Your task to perform on an android device: allow cookies in the chrome app Image 0: 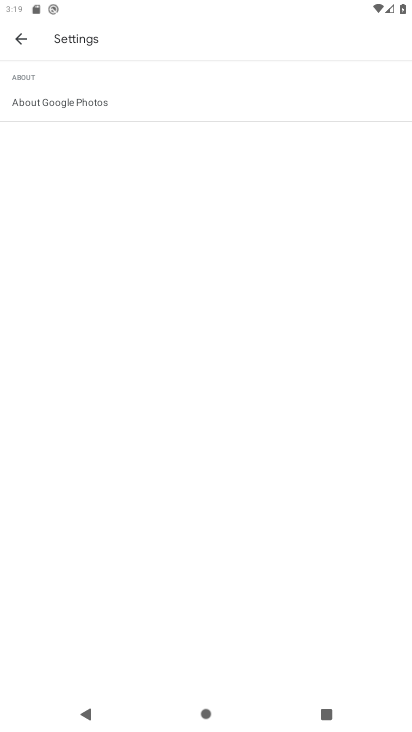
Step 0: press home button
Your task to perform on an android device: allow cookies in the chrome app Image 1: 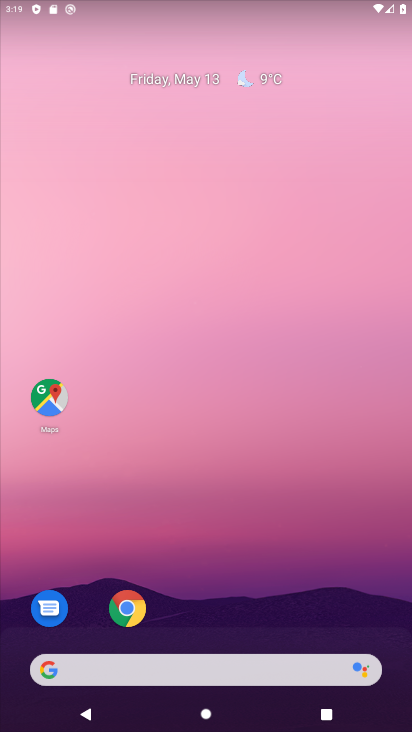
Step 1: click (128, 620)
Your task to perform on an android device: allow cookies in the chrome app Image 2: 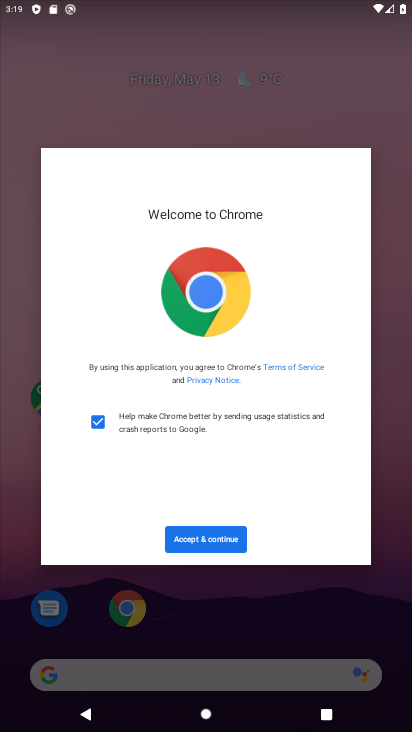
Step 2: click (210, 544)
Your task to perform on an android device: allow cookies in the chrome app Image 3: 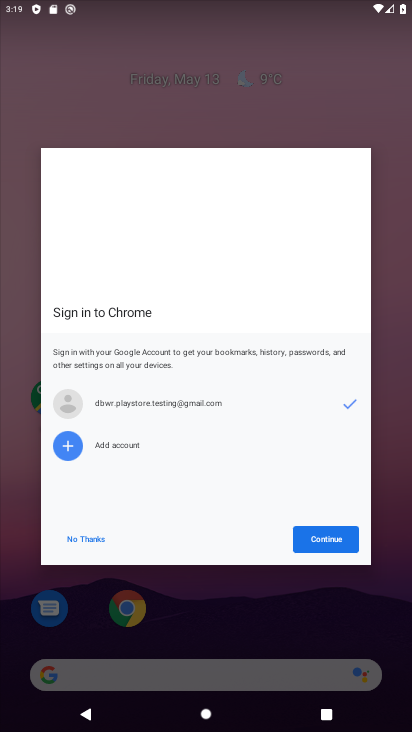
Step 3: click (362, 547)
Your task to perform on an android device: allow cookies in the chrome app Image 4: 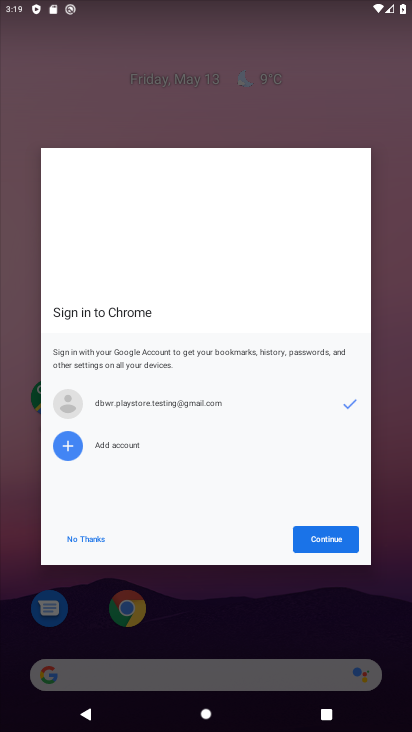
Step 4: click (333, 556)
Your task to perform on an android device: allow cookies in the chrome app Image 5: 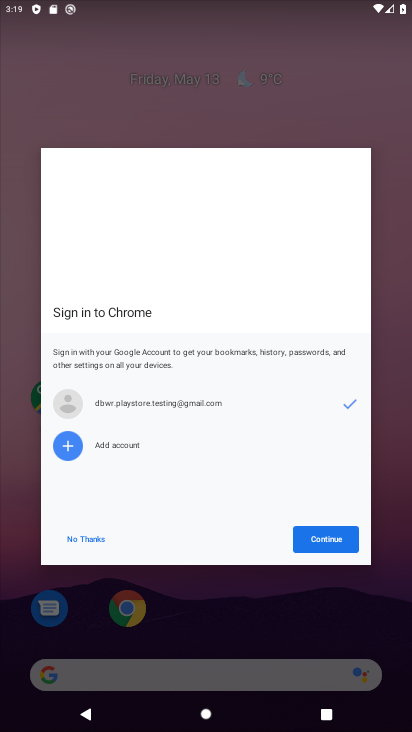
Step 5: click (334, 541)
Your task to perform on an android device: allow cookies in the chrome app Image 6: 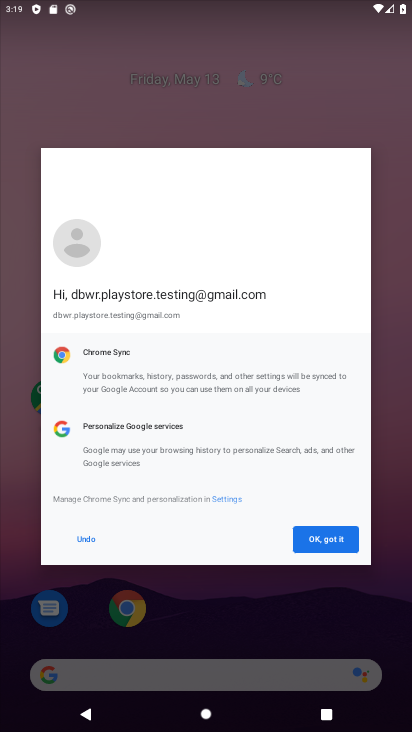
Step 6: click (326, 541)
Your task to perform on an android device: allow cookies in the chrome app Image 7: 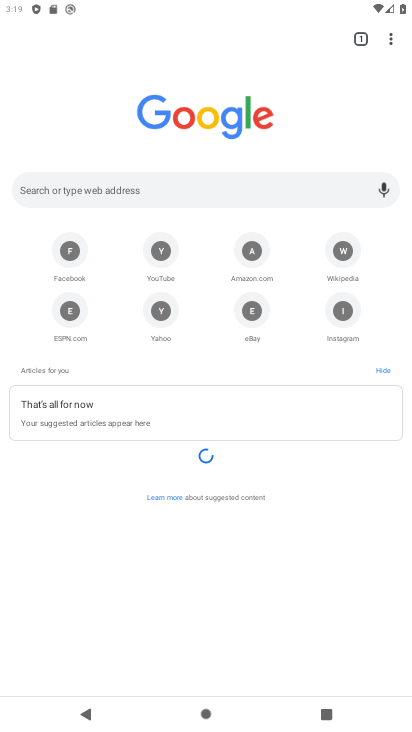
Step 7: drag from (395, 39) to (323, 329)
Your task to perform on an android device: allow cookies in the chrome app Image 8: 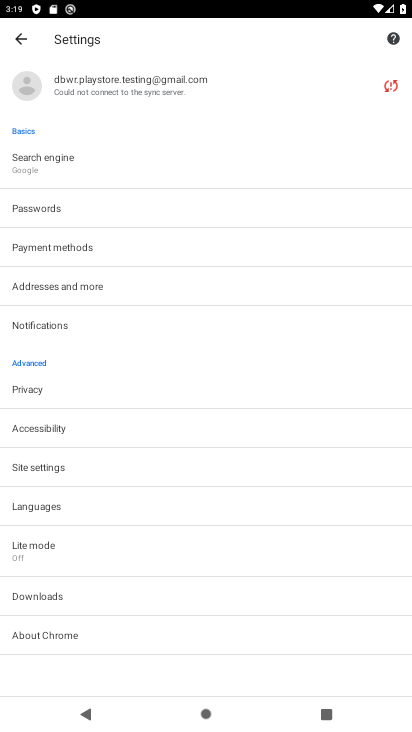
Step 8: drag from (137, 580) to (181, 462)
Your task to perform on an android device: allow cookies in the chrome app Image 9: 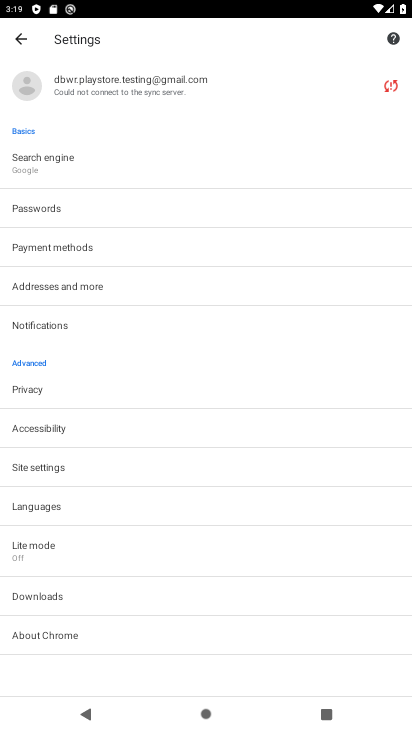
Step 9: click (181, 462)
Your task to perform on an android device: allow cookies in the chrome app Image 10: 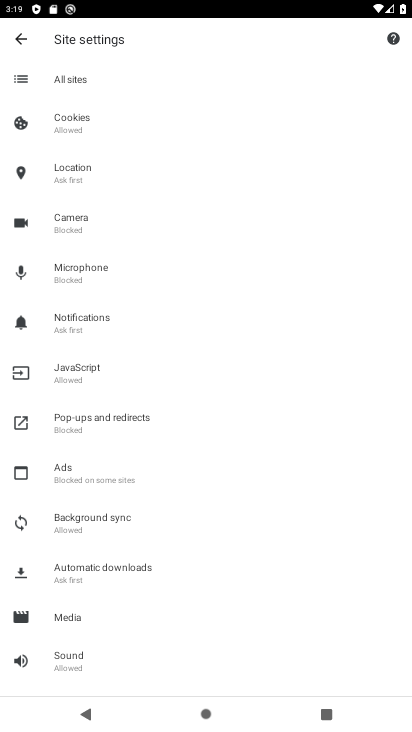
Step 10: click (181, 118)
Your task to perform on an android device: allow cookies in the chrome app Image 11: 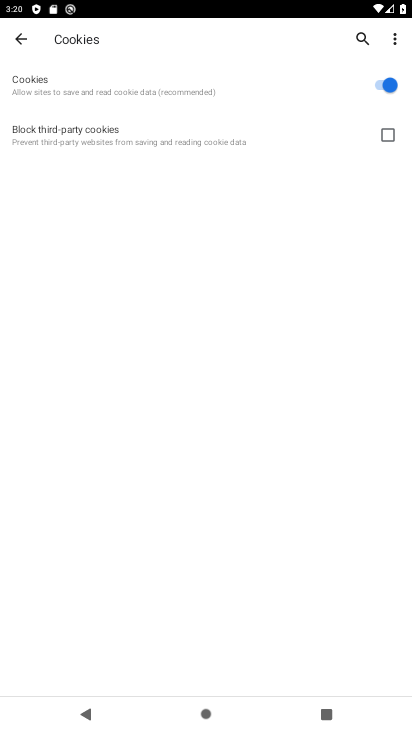
Step 11: task complete